Your task to perform on an android device: Open the map Image 0: 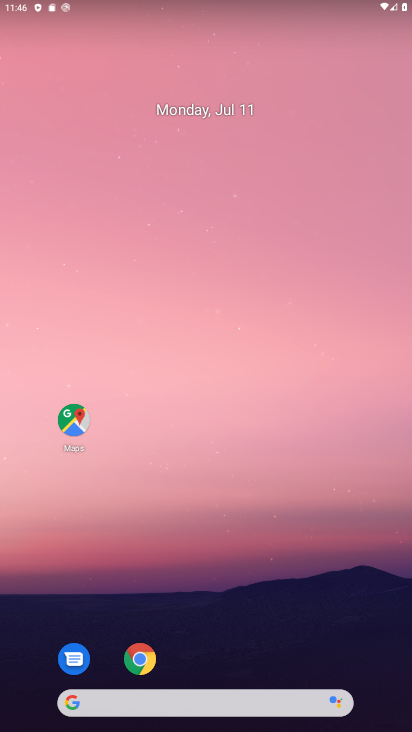
Step 0: click (70, 405)
Your task to perform on an android device: Open the map Image 1: 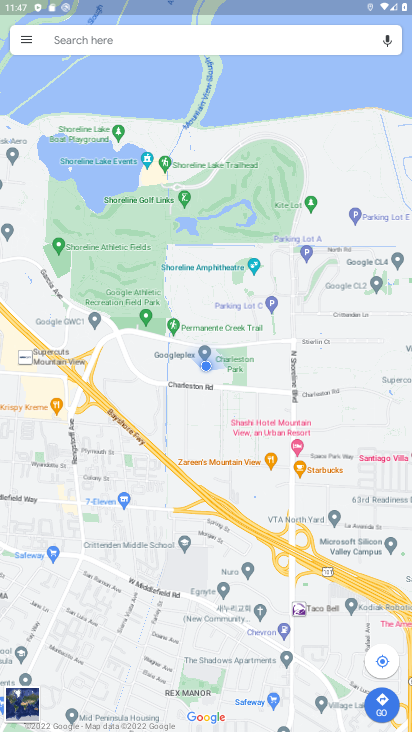
Step 1: task complete